Your task to perform on an android device: Search for pizza restaurants on Maps Image 0: 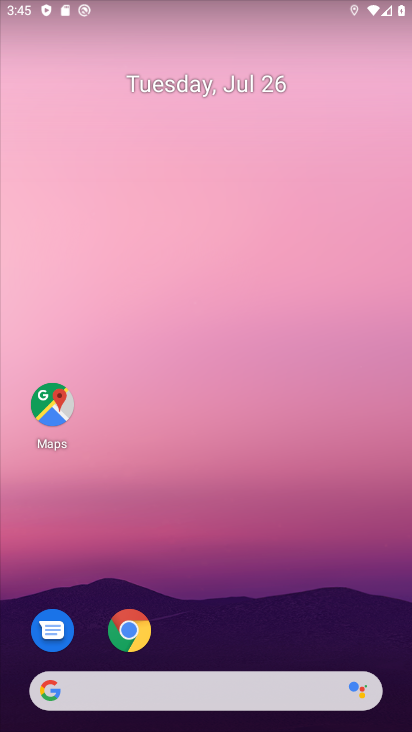
Step 0: click (64, 405)
Your task to perform on an android device: Search for pizza restaurants on Maps Image 1: 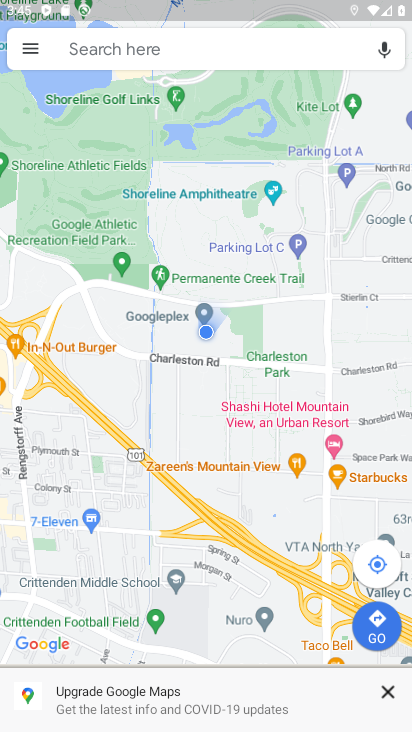
Step 1: click (153, 46)
Your task to perform on an android device: Search for pizza restaurants on Maps Image 2: 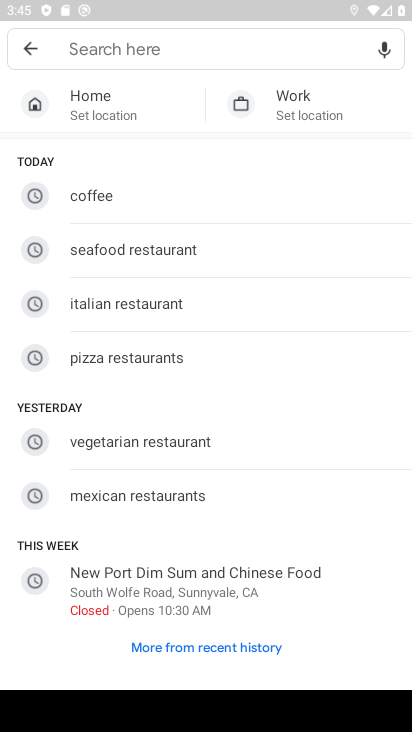
Step 2: click (323, 345)
Your task to perform on an android device: Search for pizza restaurants on Maps Image 3: 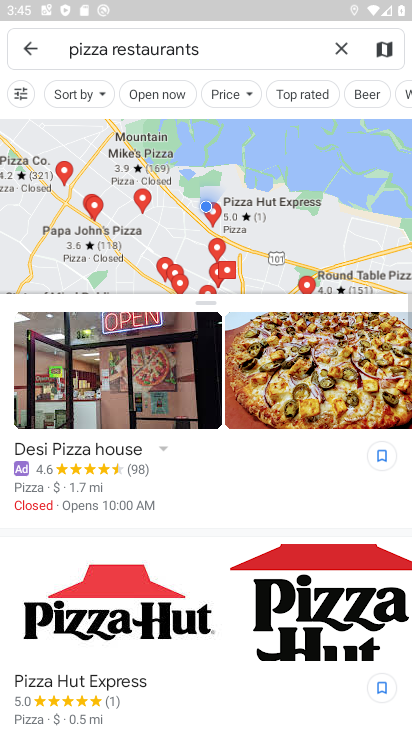
Step 3: task complete